Your task to perform on an android device: allow notifications from all sites in the chrome app Image 0: 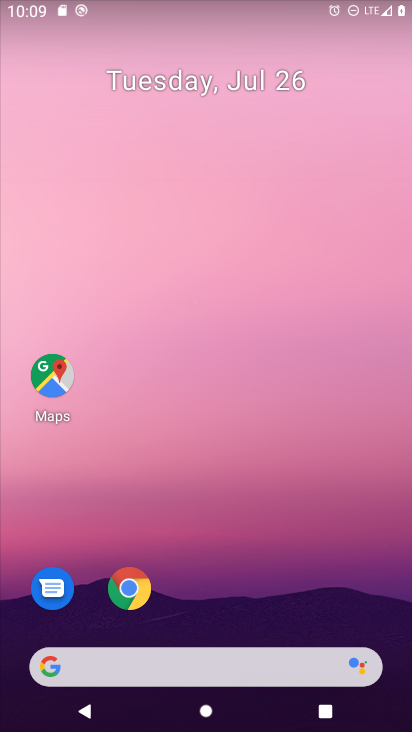
Step 0: drag from (219, 632) to (199, 113)
Your task to perform on an android device: allow notifications from all sites in the chrome app Image 1: 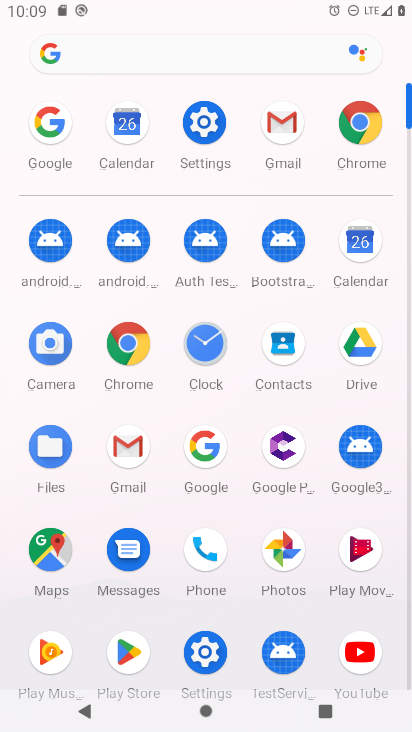
Step 1: click (137, 364)
Your task to perform on an android device: allow notifications from all sites in the chrome app Image 2: 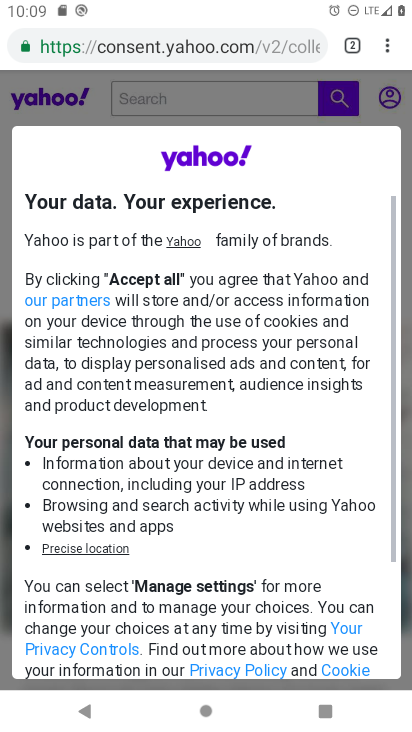
Step 2: click (386, 43)
Your task to perform on an android device: allow notifications from all sites in the chrome app Image 3: 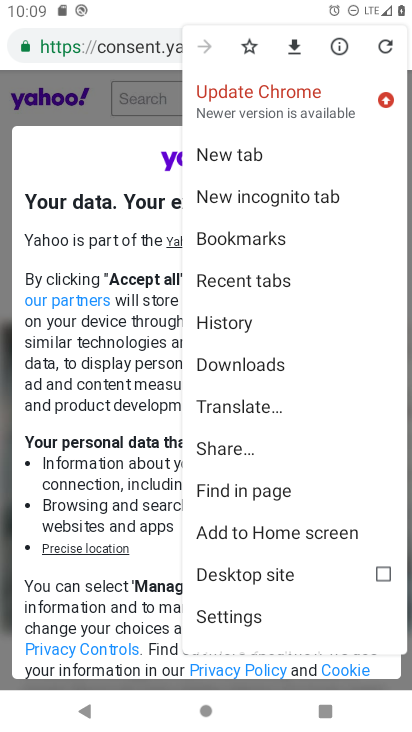
Step 3: drag from (235, 461) to (241, 98)
Your task to perform on an android device: allow notifications from all sites in the chrome app Image 4: 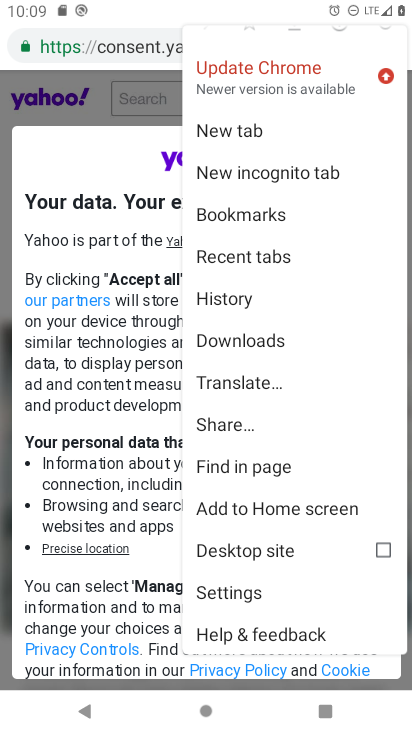
Step 4: click (239, 596)
Your task to perform on an android device: allow notifications from all sites in the chrome app Image 5: 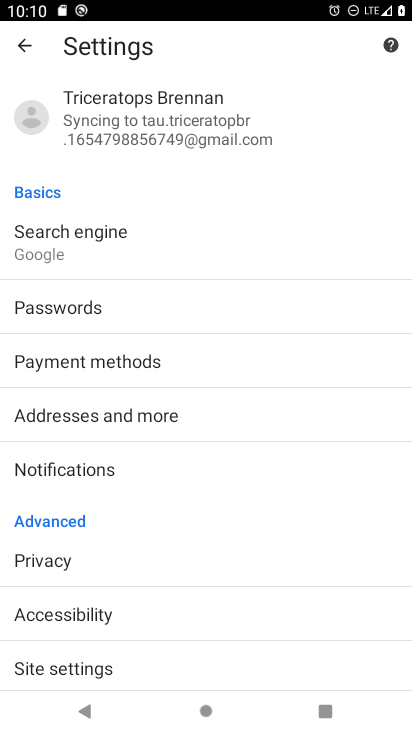
Step 5: click (71, 469)
Your task to perform on an android device: allow notifications from all sites in the chrome app Image 6: 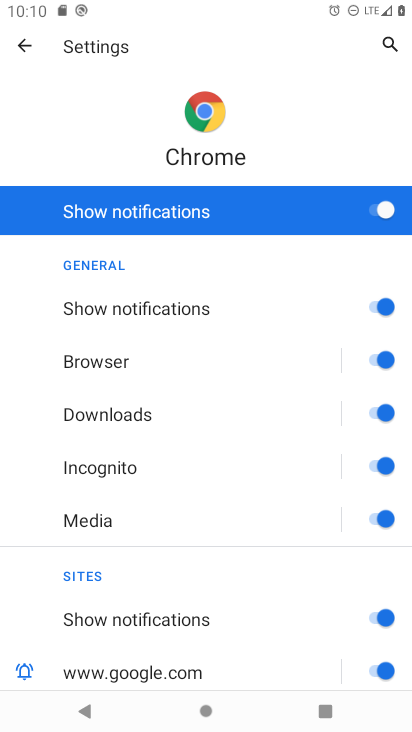
Step 6: task complete